Your task to perform on an android device: What's the weather today? Image 0: 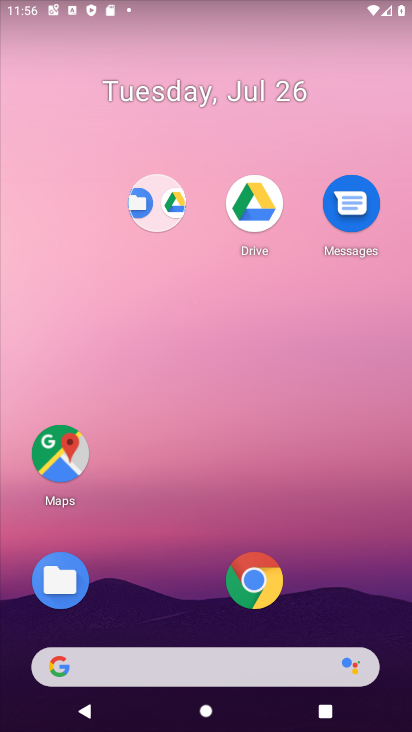
Step 0: click (131, 671)
Your task to perform on an android device: What's the weather today? Image 1: 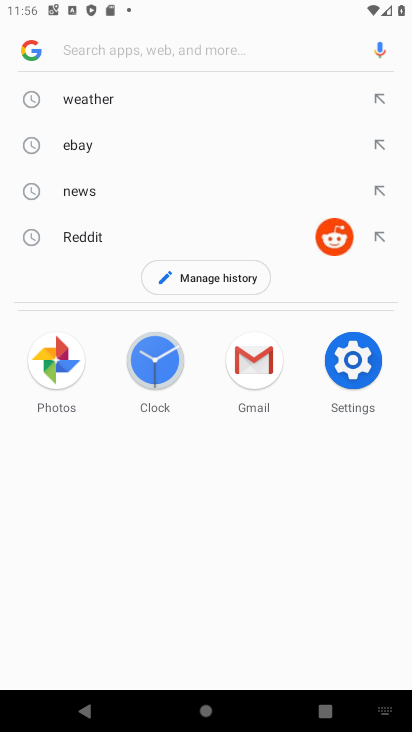
Step 1: click (88, 103)
Your task to perform on an android device: What's the weather today? Image 2: 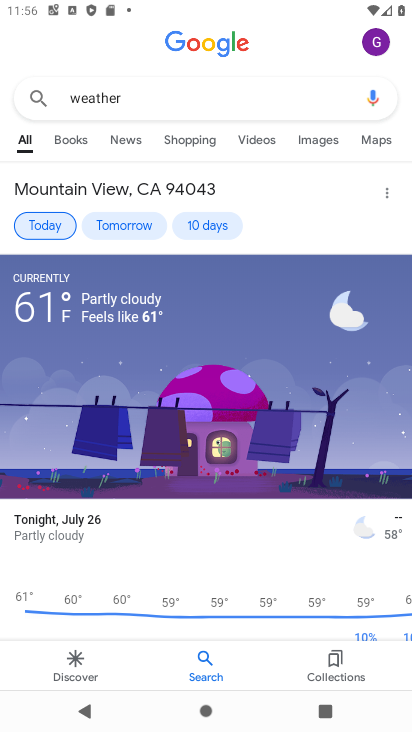
Step 2: task complete